Your task to perform on an android device: What's the weather going to be tomorrow? Image 0: 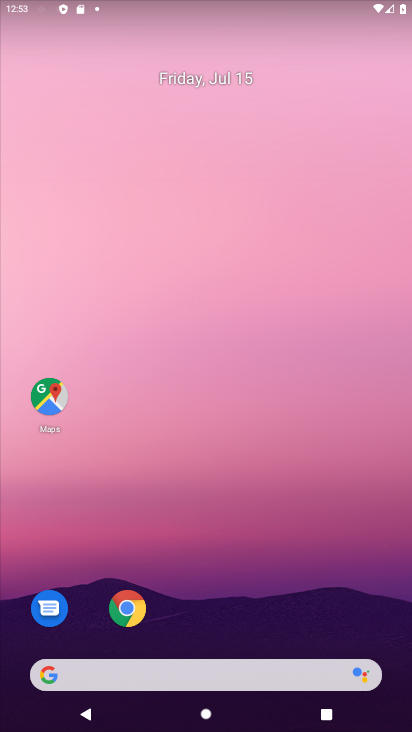
Step 0: drag from (213, 225) to (232, 58)
Your task to perform on an android device: What's the weather going to be tomorrow? Image 1: 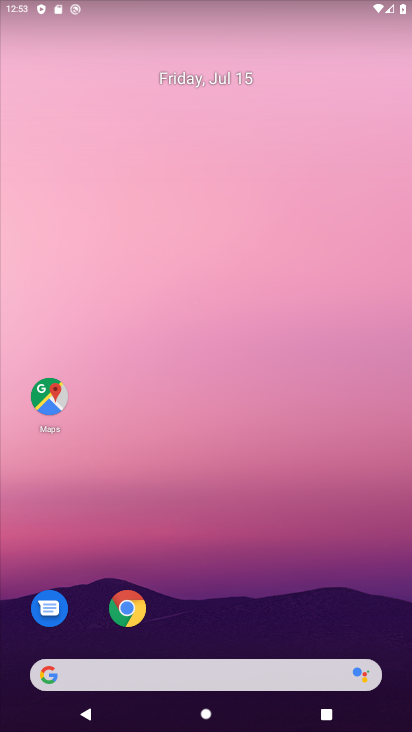
Step 1: drag from (181, 599) to (280, 64)
Your task to perform on an android device: What's the weather going to be tomorrow? Image 2: 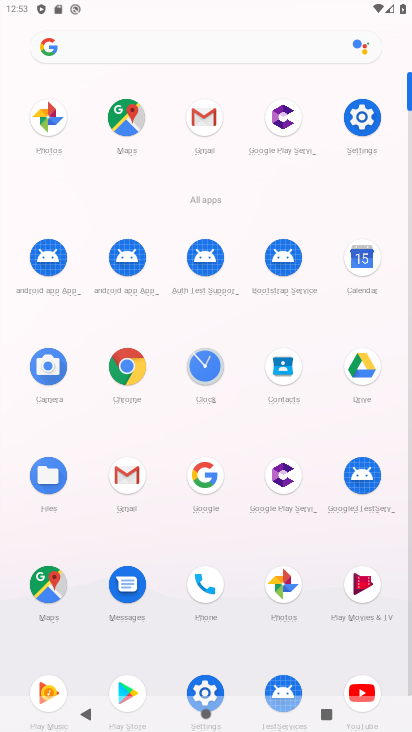
Step 2: click (171, 50)
Your task to perform on an android device: What's the weather going to be tomorrow? Image 3: 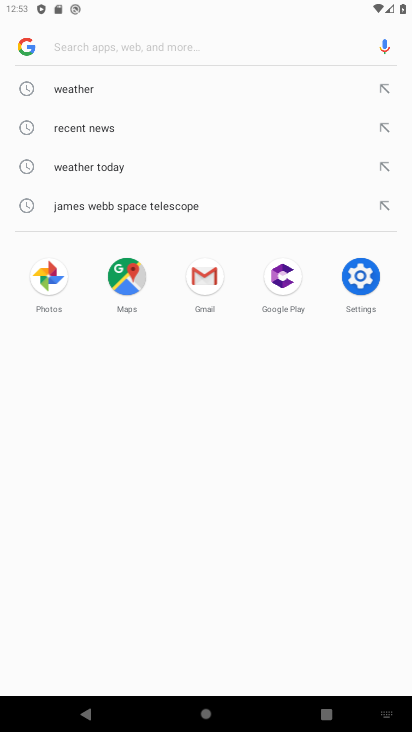
Step 3: type "What's the weather going to be tomorrow?"
Your task to perform on an android device: What's the weather going to be tomorrow? Image 4: 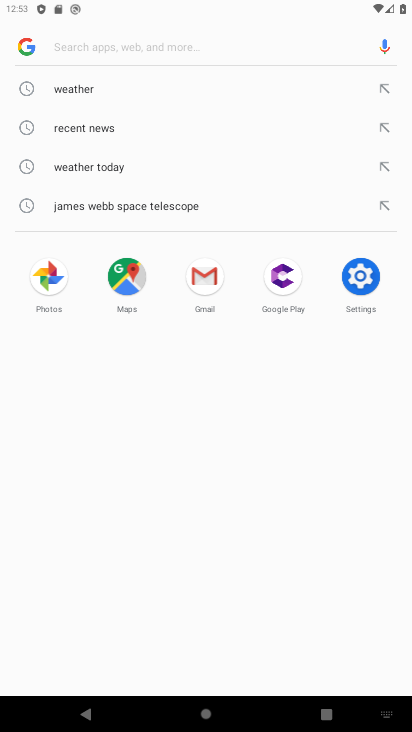
Step 4: click (74, 53)
Your task to perform on an android device: What's the weather going to be tomorrow? Image 5: 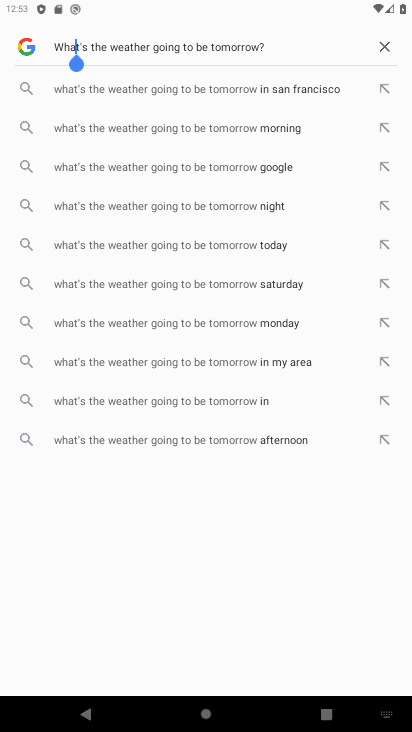
Step 5: click (80, 163)
Your task to perform on an android device: What's the weather going to be tomorrow? Image 6: 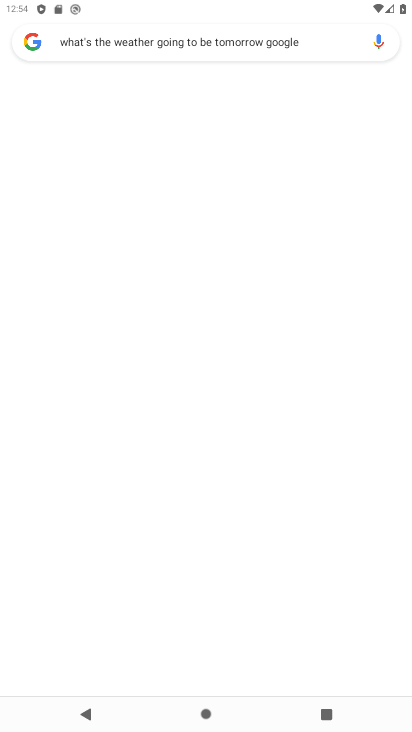
Step 6: task complete